Your task to perform on an android device: read, delete, or share a saved page in the chrome app Image 0: 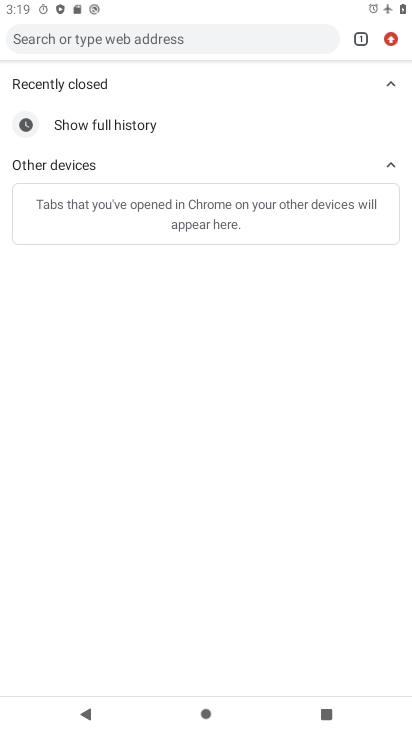
Step 0: click (390, 42)
Your task to perform on an android device: read, delete, or share a saved page in the chrome app Image 1: 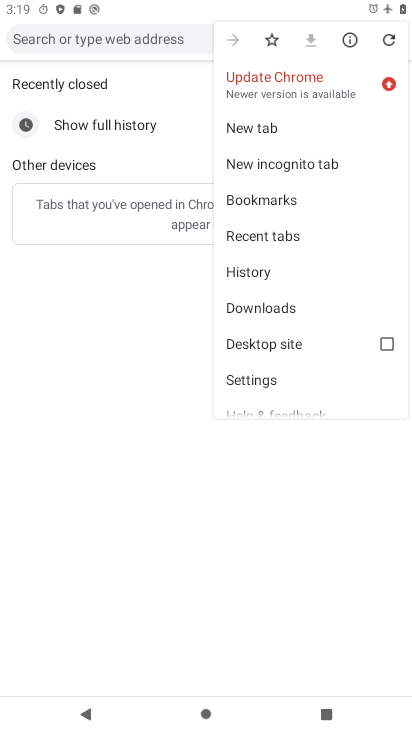
Step 1: click (264, 305)
Your task to perform on an android device: read, delete, or share a saved page in the chrome app Image 2: 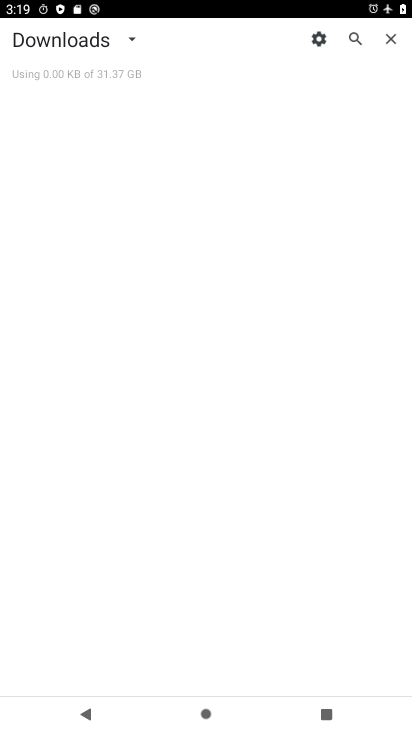
Step 2: click (126, 37)
Your task to perform on an android device: read, delete, or share a saved page in the chrome app Image 3: 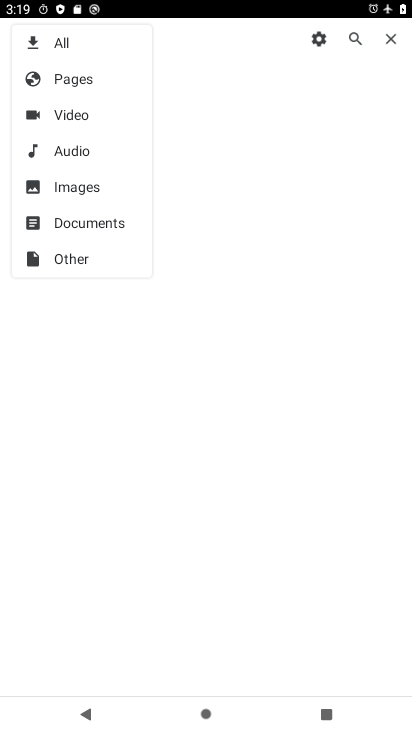
Step 3: click (88, 77)
Your task to perform on an android device: read, delete, or share a saved page in the chrome app Image 4: 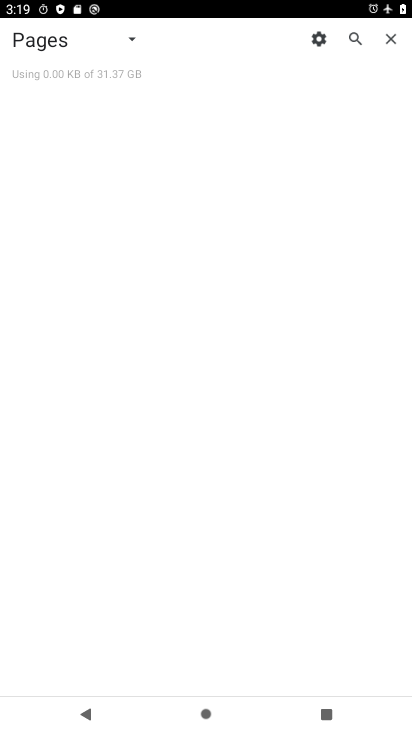
Step 4: task complete